Your task to perform on an android device: Go to accessibility settings Image 0: 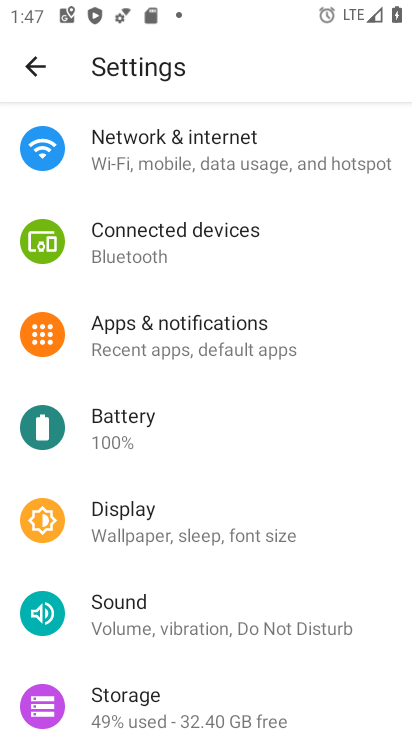
Step 0: drag from (270, 641) to (263, 124)
Your task to perform on an android device: Go to accessibility settings Image 1: 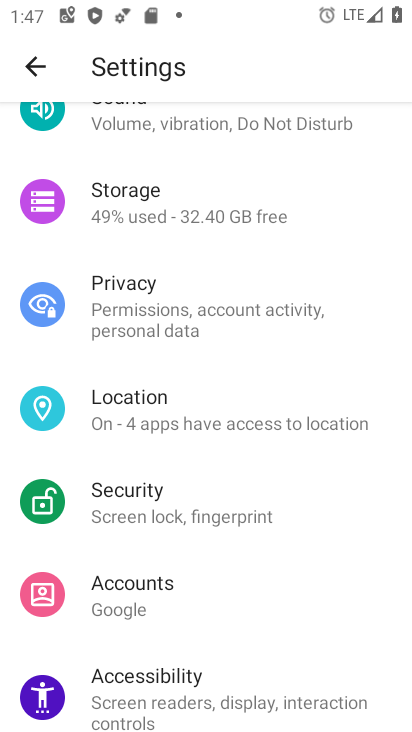
Step 1: click (180, 677)
Your task to perform on an android device: Go to accessibility settings Image 2: 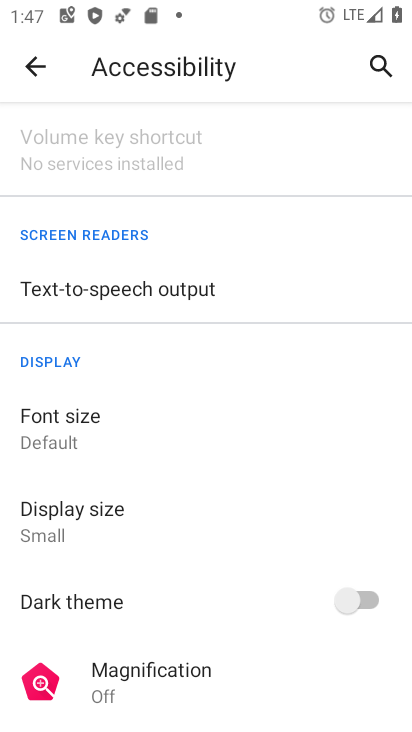
Step 2: task complete